Your task to perform on an android device: Open settings on Google Maps Image 0: 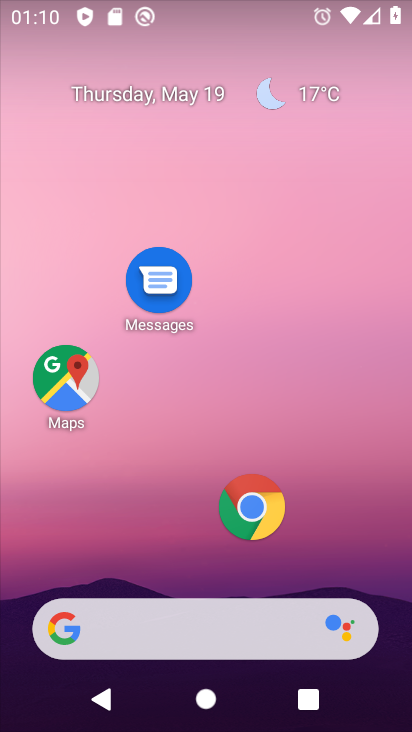
Step 0: click (60, 378)
Your task to perform on an android device: Open settings on Google Maps Image 1: 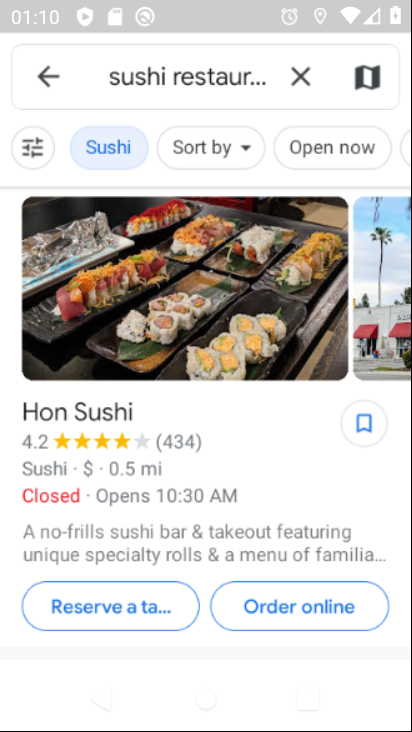
Step 1: click (288, 74)
Your task to perform on an android device: Open settings on Google Maps Image 2: 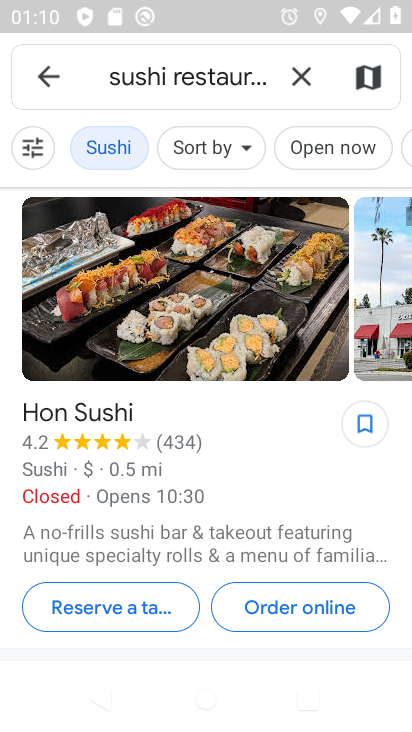
Step 2: click (296, 77)
Your task to perform on an android device: Open settings on Google Maps Image 3: 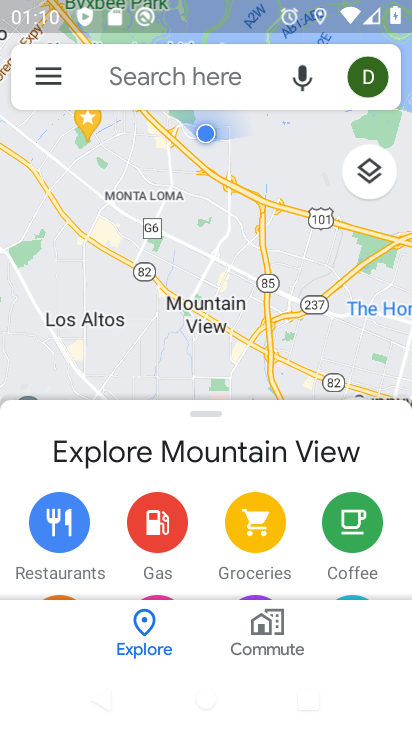
Step 3: click (49, 78)
Your task to perform on an android device: Open settings on Google Maps Image 4: 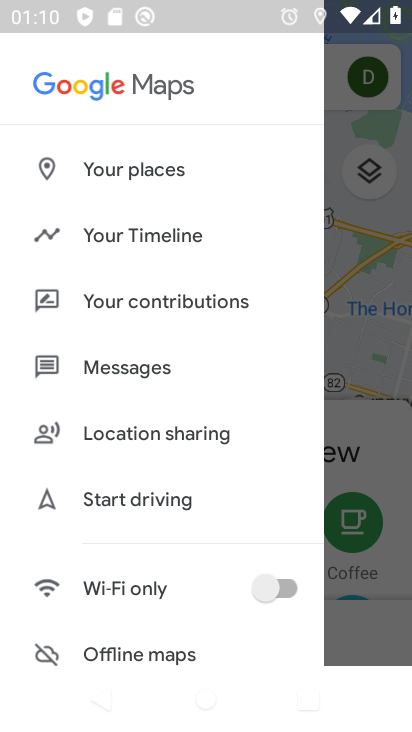
Step 4: drag from (151, 656) to (148, 317)
Your task to perform on an android device: Open settings on Google Maps Image 5: 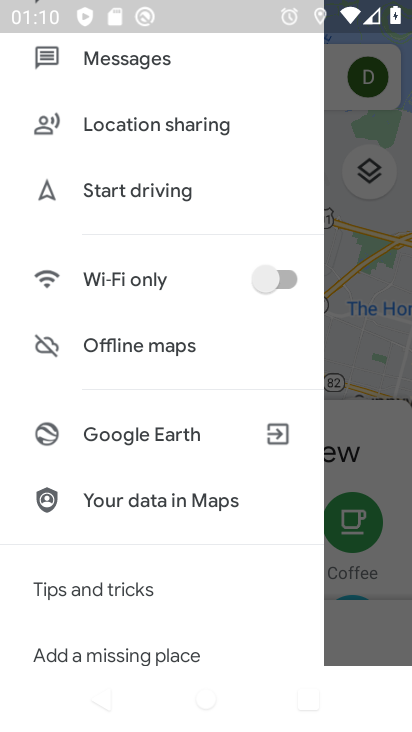
Step 5: drag from (110, 666) to (125, 332)
Your task to perform on an android device: Open settings on Google Maps Image 6: 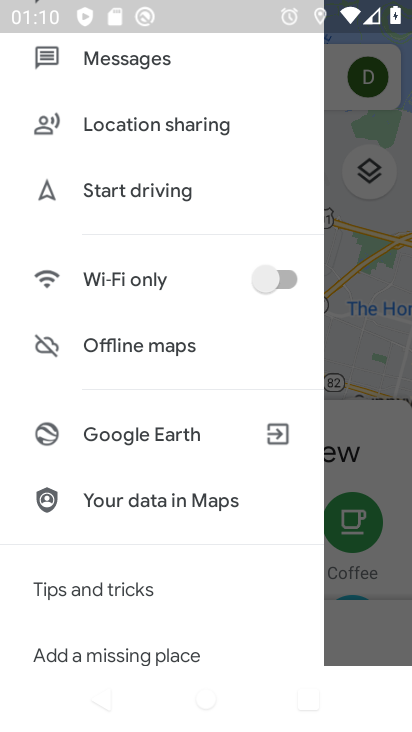
Step 6: drag from (118, 662) to (122, 404)
Your task to perform on an android device: Open settings on Google Maps Image 7: 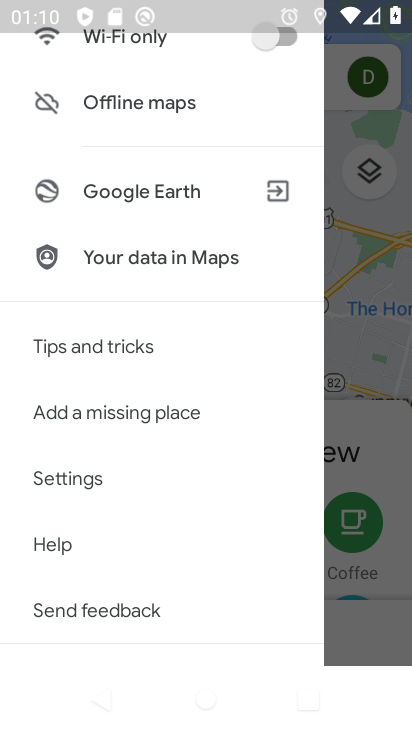
Step 7: click (69, 485)
Your task to perform on an android device: Open settings on Google Maps Image 8: 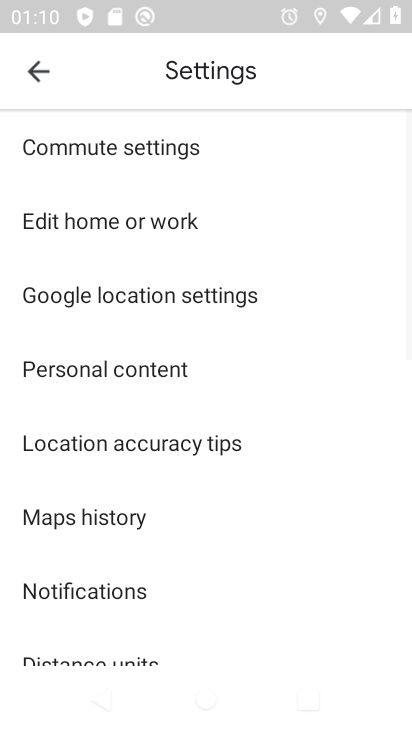
Step 8: task complete